Your task to perform on an android device: Is it going to rain this weekend? Image 0: 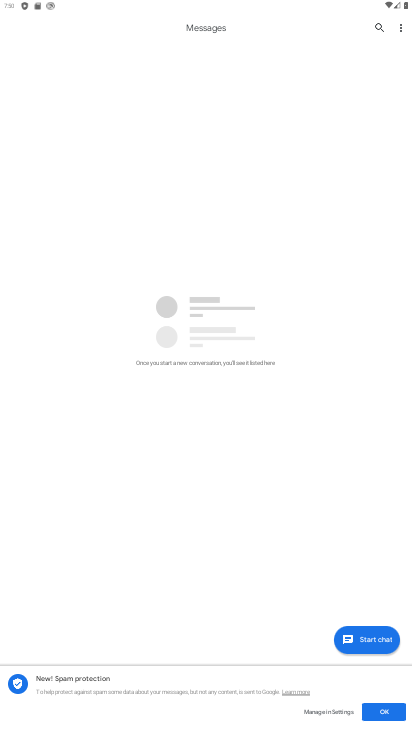
Step 0: press home button
Your task to perform on an android device: Is it going to rain this weekend? Image 1: 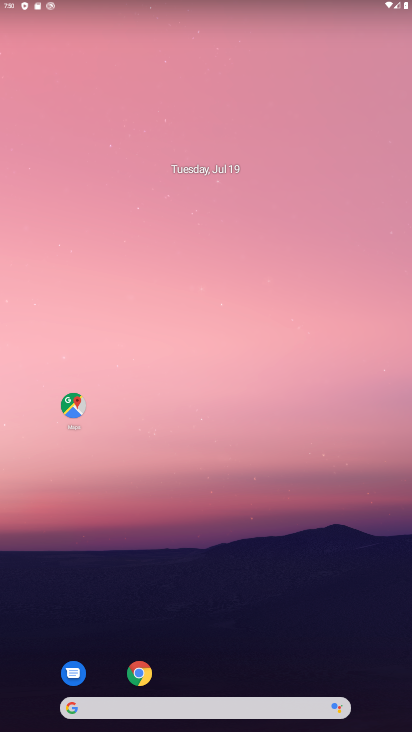
Step 1: click (120, 707)
Your task to perform on an android device: Is it going to rain this weekend? Image 2: 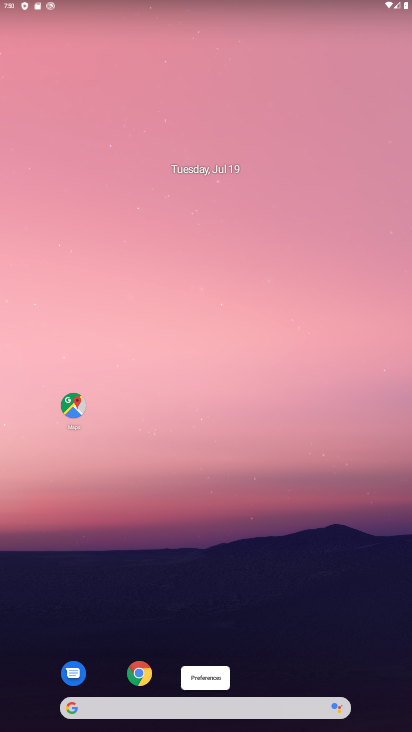
Step 2: click (123, 701)
Your task to perform on an android device: Is it going to rain this weekend? Image 3: 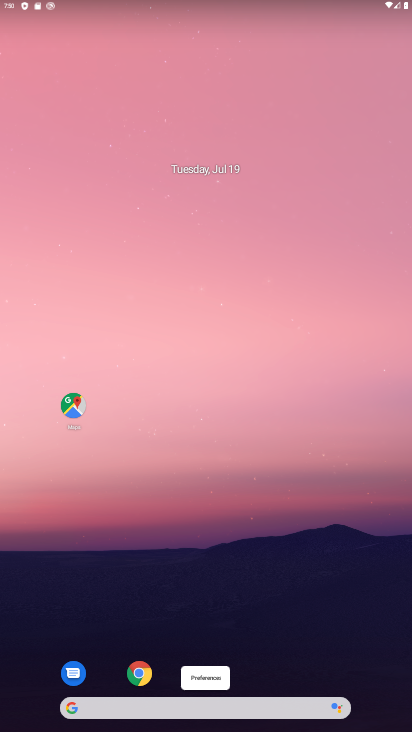
Step 3: click (119, 705)
Your task to perform on an android device: Is it going to rain this weekend? Image 4: 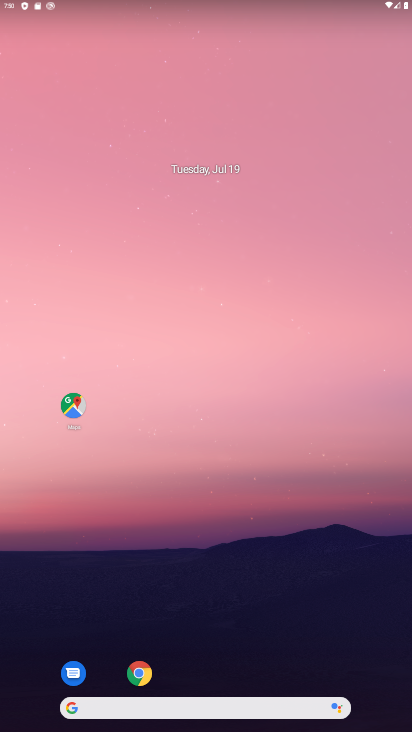
Step 4: drag from (119, 705) to (275, 28)
Your task to perform on an android device: Is it going to rain this weekend? Image 5: 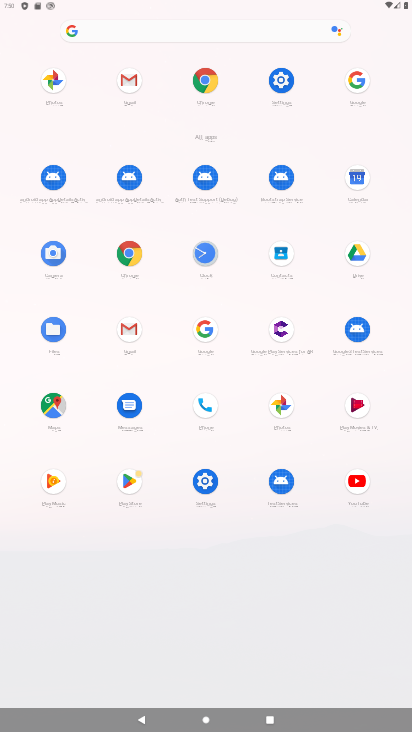
Step 5: click (201, 26)
Your task to perform on an android device: Is it going to rain this weekend? Image 6: 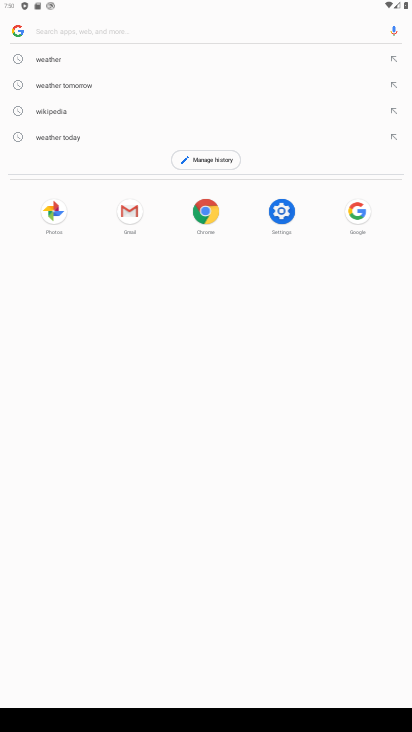
Step 6: type "Is it going to rain this weekend?"
Your task to perform on an android device: Is it going to rain this weekend? Image 7: 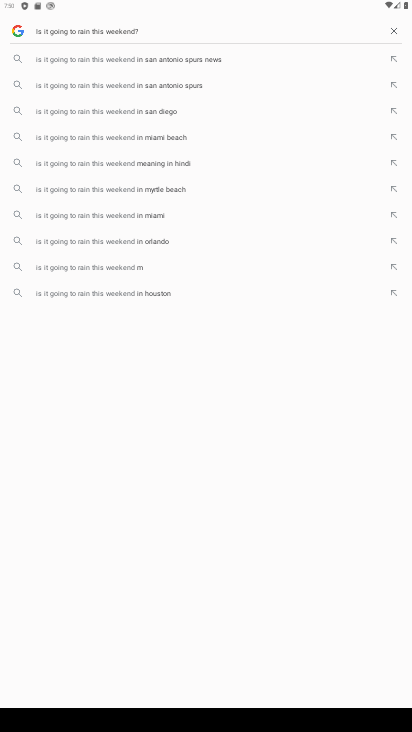
Step 7: press enter
Your task to perform on an android device: Is it going to rain this weekend? Image 8: 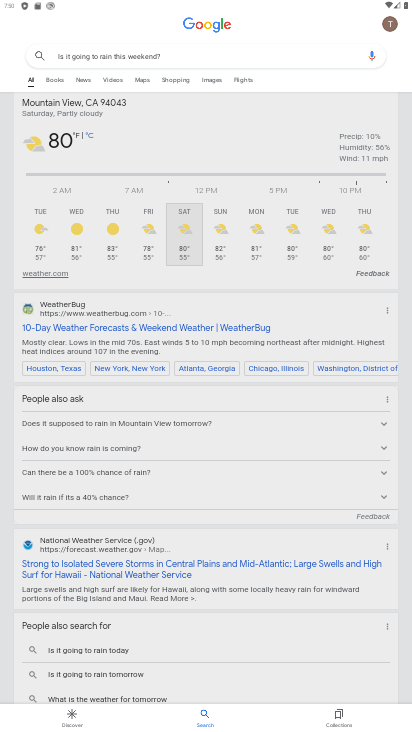
Step 8: task complete